Your task to perform on an android device: show emergency info Image 0: 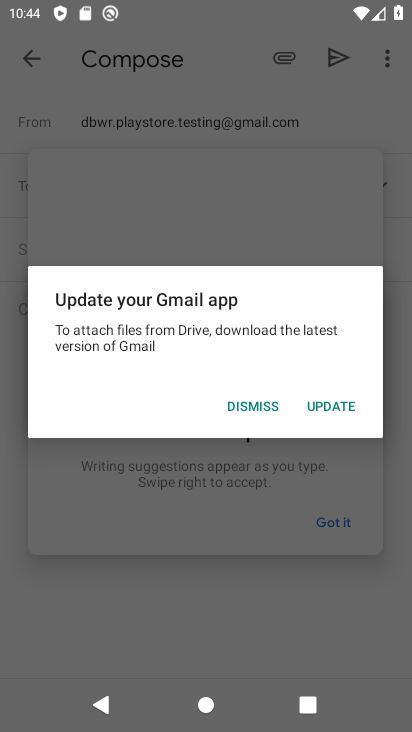
Step 0: press home button
Your task to perform on an android device: show emergency info Image 1: 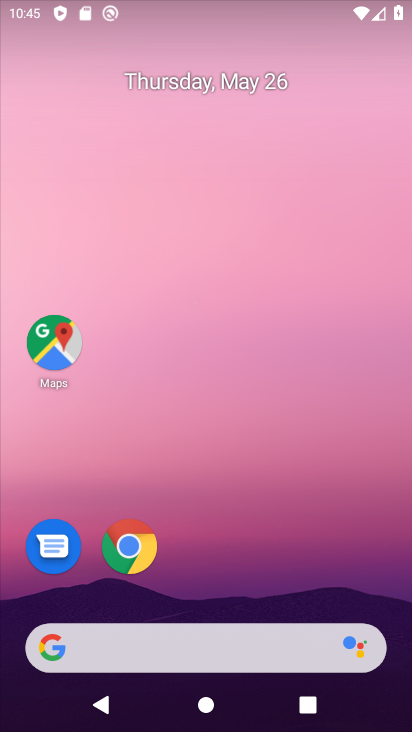
Step 1: drag from (239, 577) to (294, 248)
Your task to perform on an android device: show emergency info Image 2: 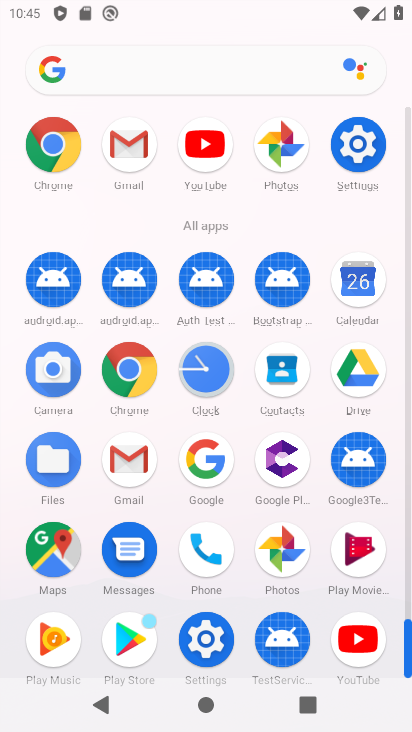
Step 2: click (185, 651)
Your task to perform on an android device: show emergency info Image 3: 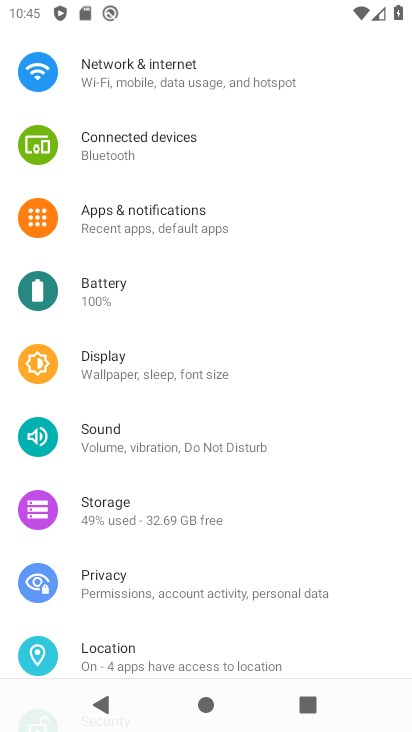
Step 3: drag from (217, 628) to (252, 219)
Your task to perform on an android device: show emergency info Image 4: 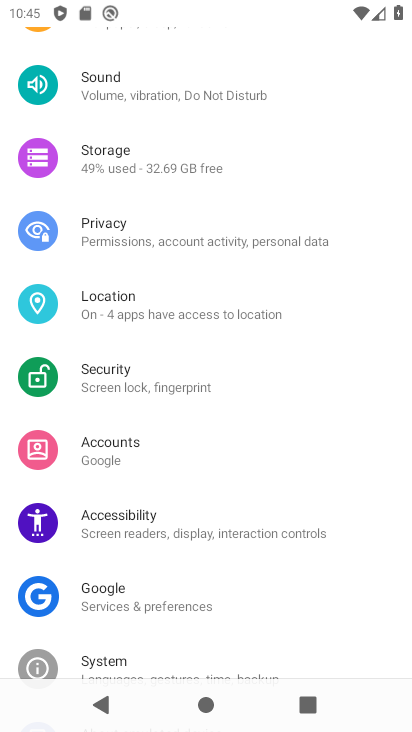
Step 4: drag from (239, 586) to (243, 178)
Your task to perform on an android device: show emergency info Image 5: 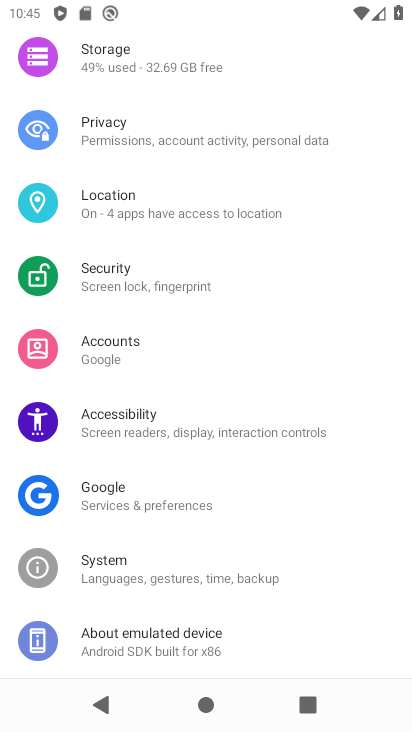
Step 5: click (203, 632)
Your task to perform on an android device: show emergency info Image 6: 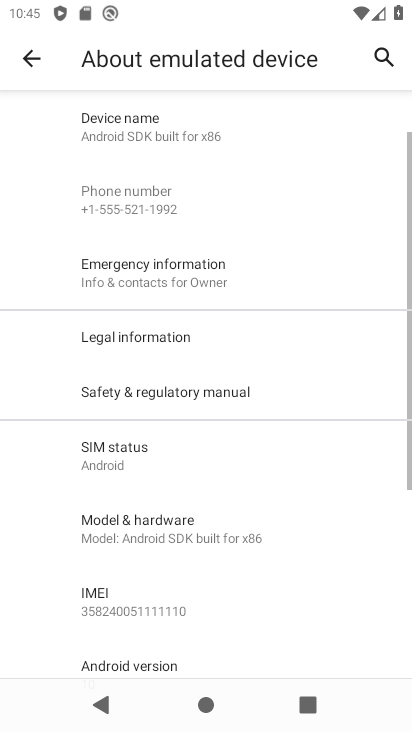
Step 6: click (190, 276)
Your task to perform on an android device: show emergency info Image 7: 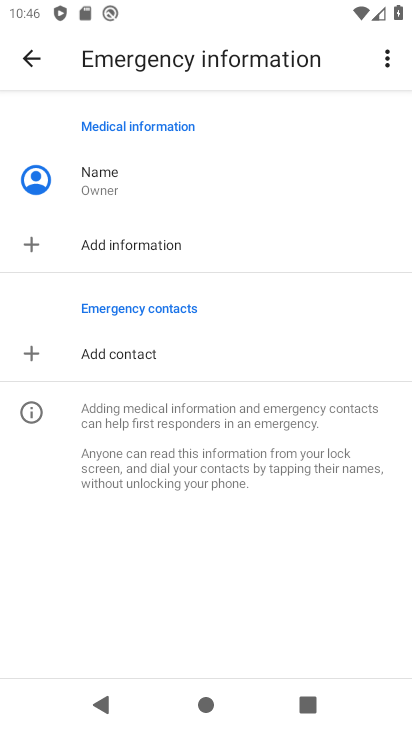
Step 7: task complete